Your task to perform on an android device: Open Wikipedia Image 0: 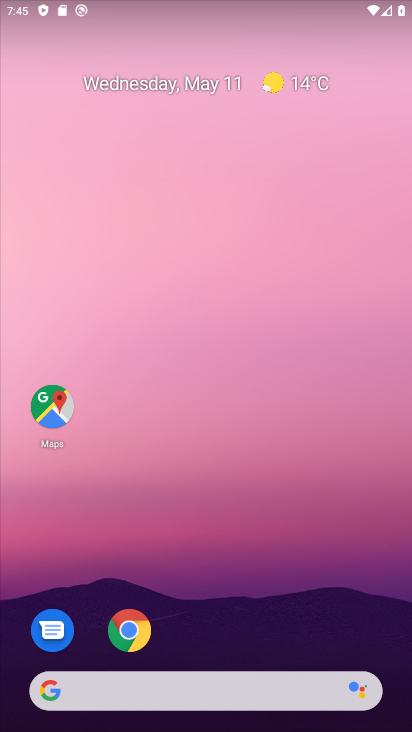
Step 0: click (175, 69)
Your task to perform on an android device: Open Wikipedia Image 1: 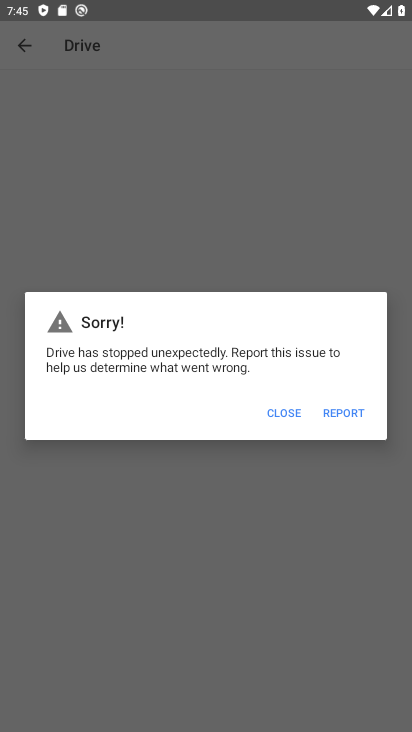
Step 1: click (286, 414)
Your task to perform on an android device: Open Wikipedia Image 2: 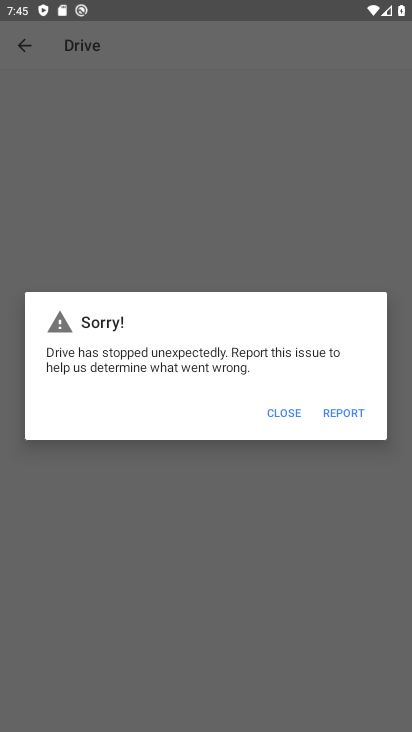
Step 2: click (286, 414)
Your task to perform on an android device: Open Wikipedia Image 3: 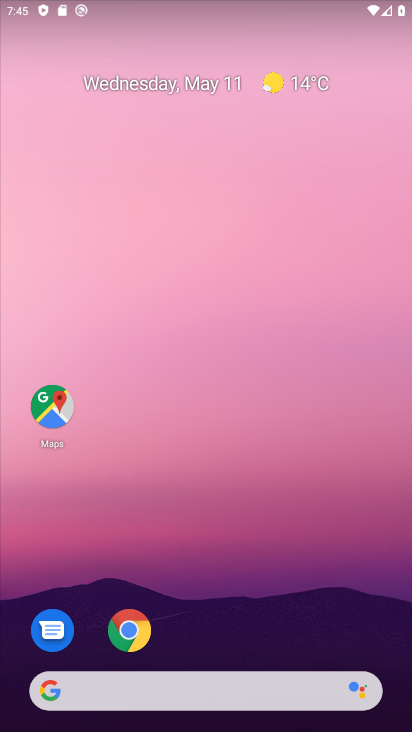
Step 3: drag from (244, 556) to (77, 47)
Your task to perform on an android device: Open Wikipedia Image 4: 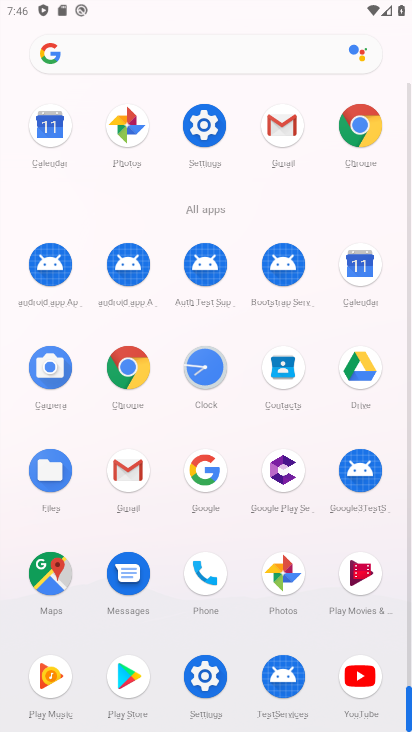
Step 4: click (357, 117)
Your task to perform on an android device: Open Wikipedia Image 5: 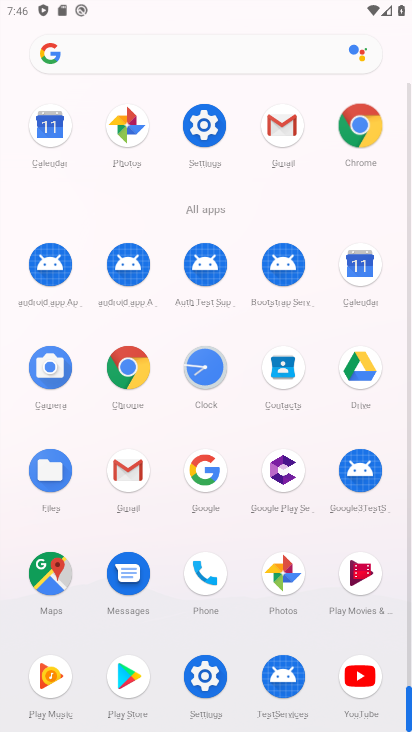
Step 5: click (358, 118)
Your task to perform on an android device: Open Wikipedia Image 6: 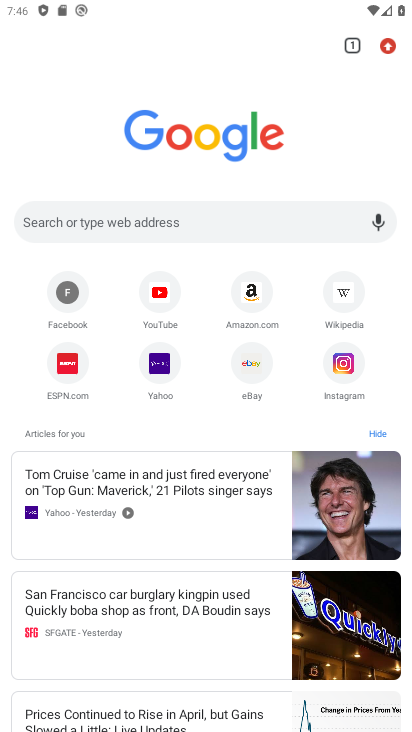
Step 6: click (348, 294)
Your task to perform on an android device: Open Wikipedia Image 7: 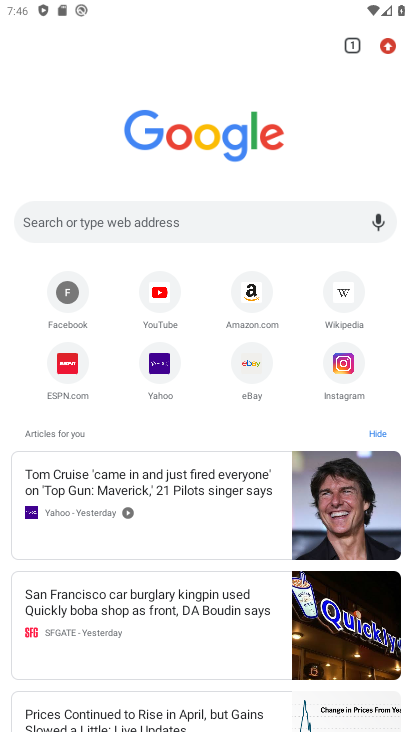
Step 7: click (348, 294)
Your task to perform on an android device: Open Wikipedia Image 8: 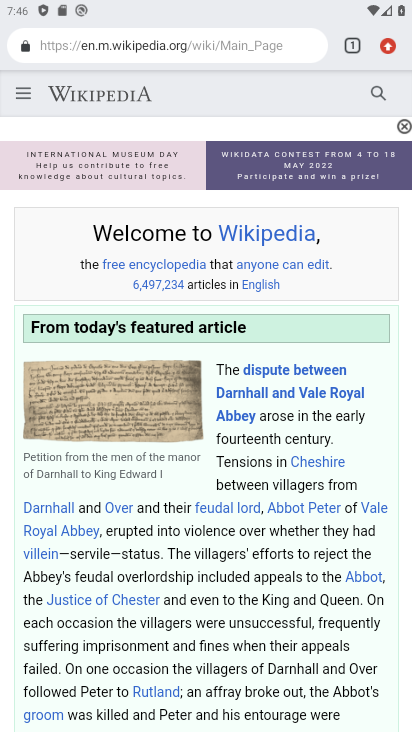
Step 8: task complete